Your task to perform on an android device: Is it going to rain tomorrow? Image 0: 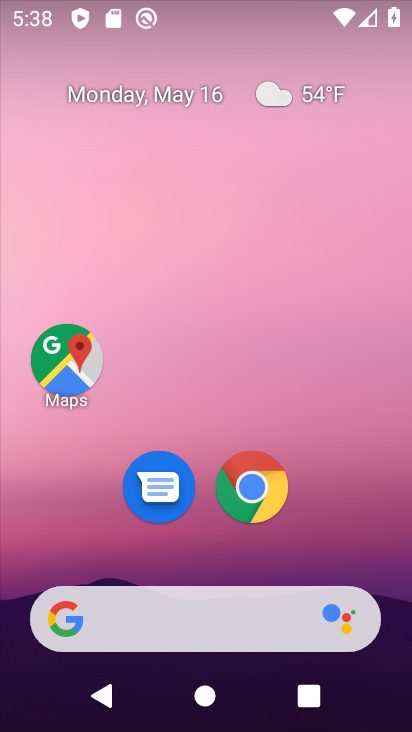
Step 0: drag from (235, 587) to (231, 281)
Your task to perform on an android device: Is it going to rain tomorrow? Image 1: 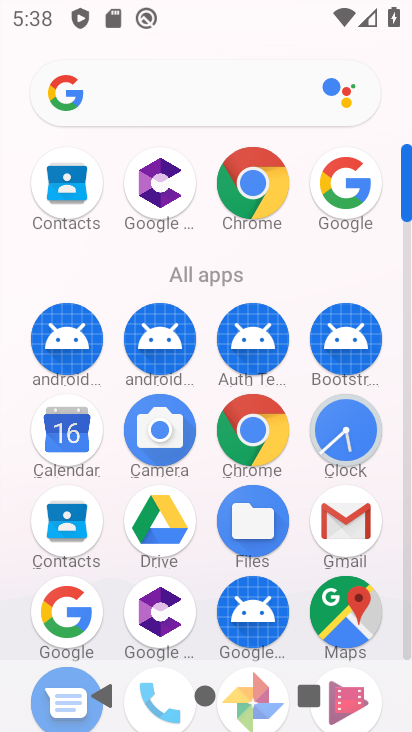
Step 1: click (58, 617)
Your task to perform on an android device: Is it going to rain tomorrow? Image 2: 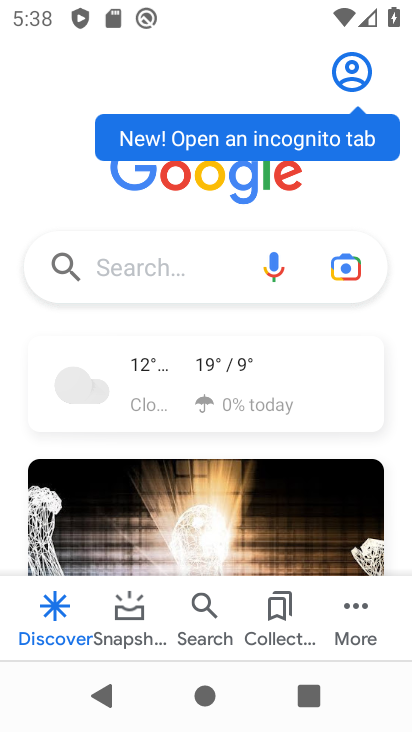
Step 2: click (174, 262)
Your task to perform on an android device: Is it going to rain tomorrow? Image 3: 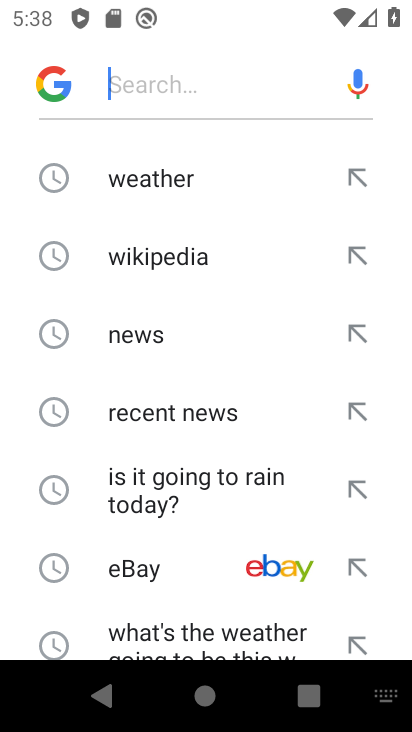
Step 3: click (186, 500)
Your task to perform on an android device: Is it going to rain tomorrow? Image 4: 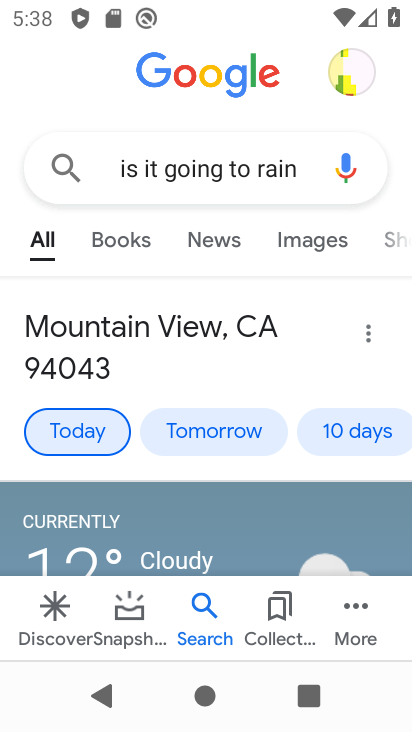
Step 4: click (178, 432)
Your task to perform on an android device: Is it going to rain tomorrow? Image 5: 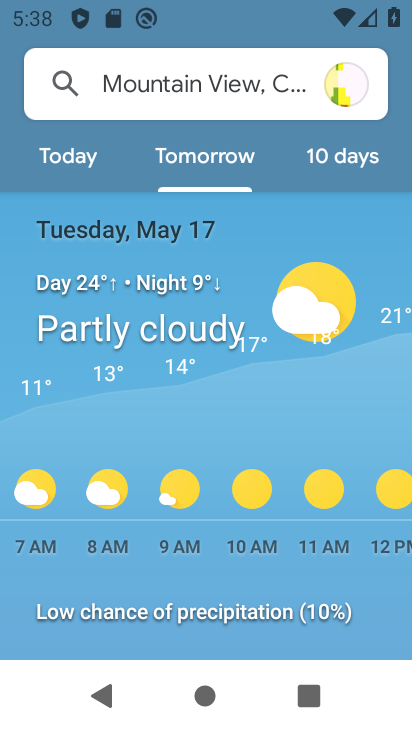
Step 5: task complete